Your task to perform on an android device: Open Google Maps and go to "Timeline" Image 0: 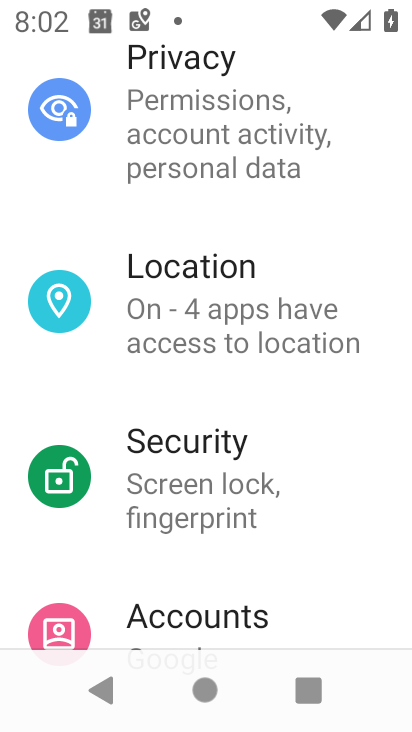
Step 0: press home button
Your task to perform on an android device: Open Google Maps and go to "Timeline" Image 1: 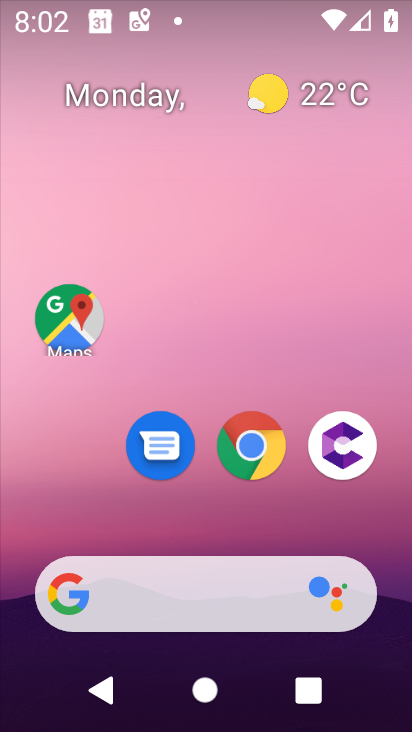
Step 1: click (72, 322)
Your task to perform on an android device: Open Google Maps and go to "Timeline" Image 2: 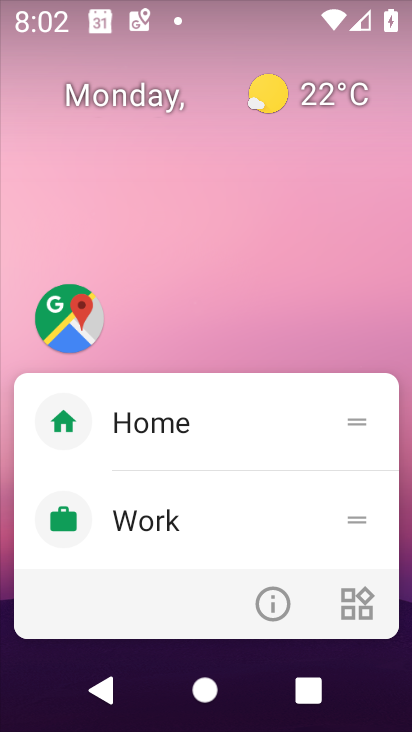
Step 2: click (72, 322)
Your task to perform on an android device: Open Google Maps and go to "Timeline" Image 3: 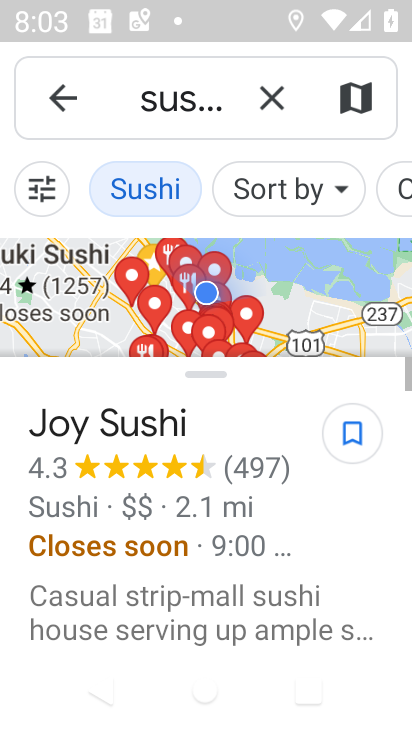
Step 3: click (276, 96)
Your task to perform on an android device: Open Google Maps and go to "Timeline" Image 4: 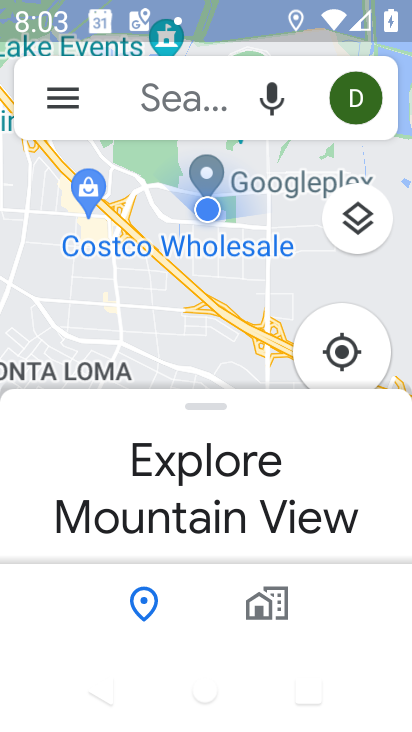
Step 4: click (68, 102)
Your task to perform on an android device: Open Google Maps and go to "Timeline" Image 5: 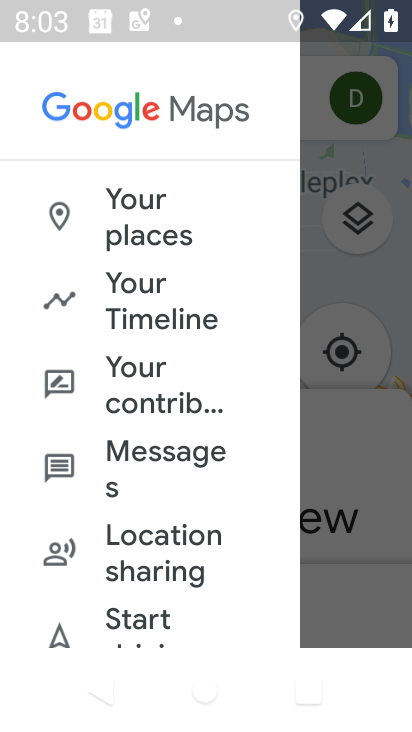
Step 5: click (164, 319)
Your task to perform on an android device: Open Google Maps and go to "Timeline" Image 6: 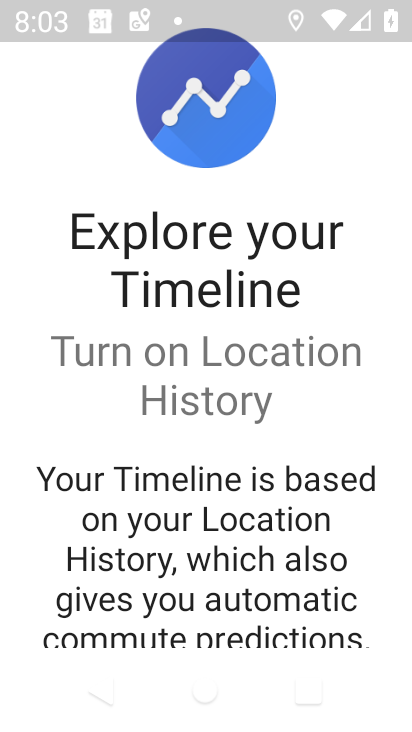
Step 6: drag from (366, 608) to (318, 11)
Your task to perform on an android device: Open Google Maps and go to "Timeline" Image 7: 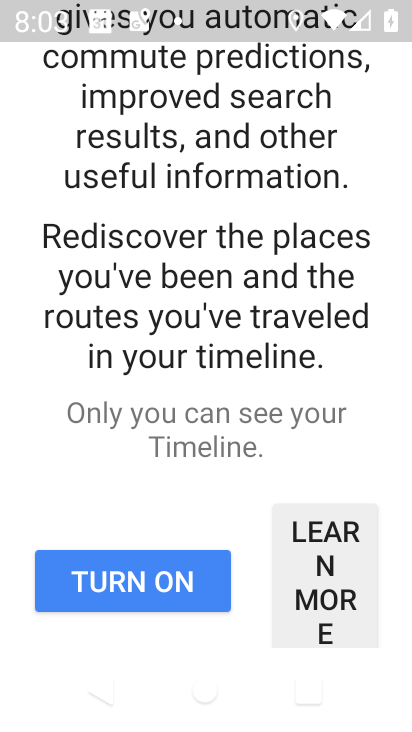
Step 7: click (156, 582)
Your task to perform on an android device: Open Google Maps and go to "Timeline" Image 8: 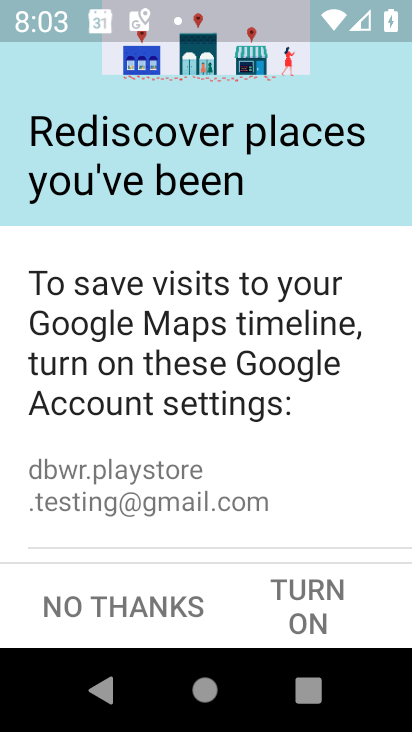
Step 8: click (111, 606)
Your task to perform on an android device: Open Google Maps and go to "Timeline" Image 9: 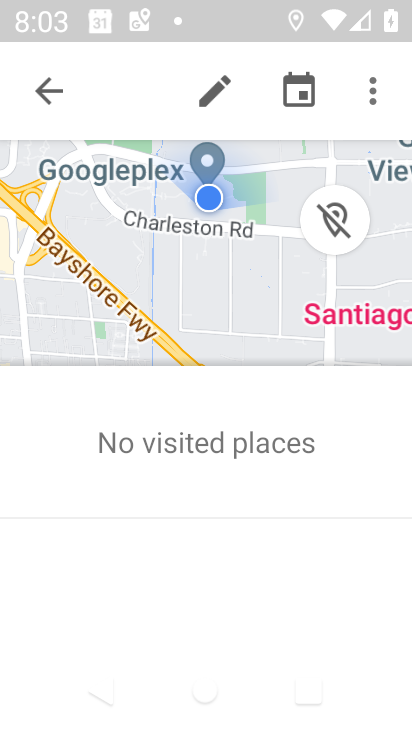
Step 9: task complete